Your task to perform on an android device: change the clock display to analog Image 0: 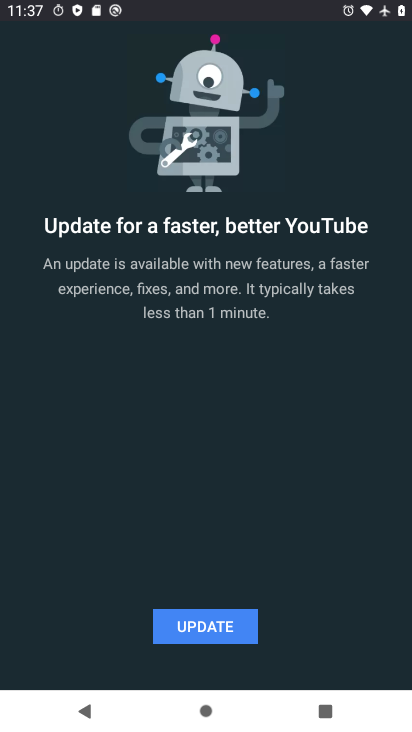
Step 0: press home button
Your task to perform on an android device: change the clock display to analog Image 1: 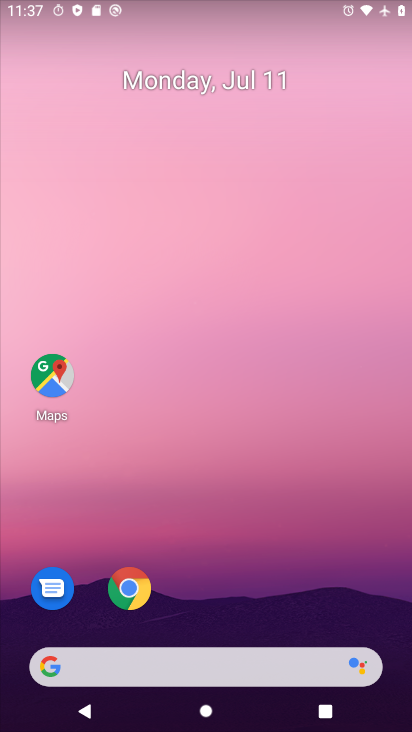
Step 1: drag from (189, 676) to (316, 8)
Your task to perform on an android device: change the clock display to analog Image 2: 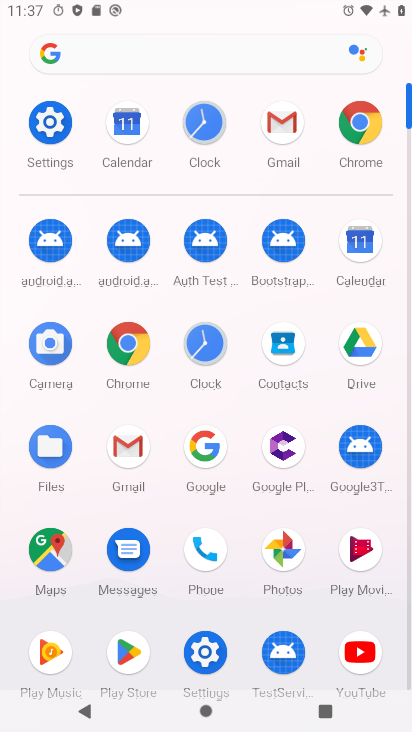
Step 2: click (205, 348)
Your task to perform on an android device: change the clock display to analog Image 3: 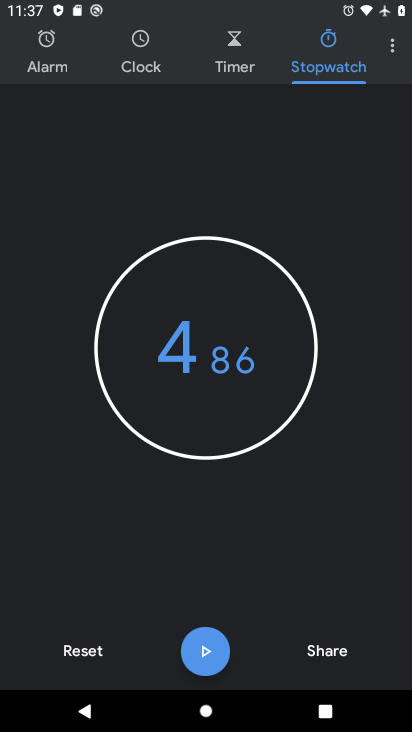
Step 3: click (391, 46)
Your task to perform on an android device: change the clock display to analog Image 4: 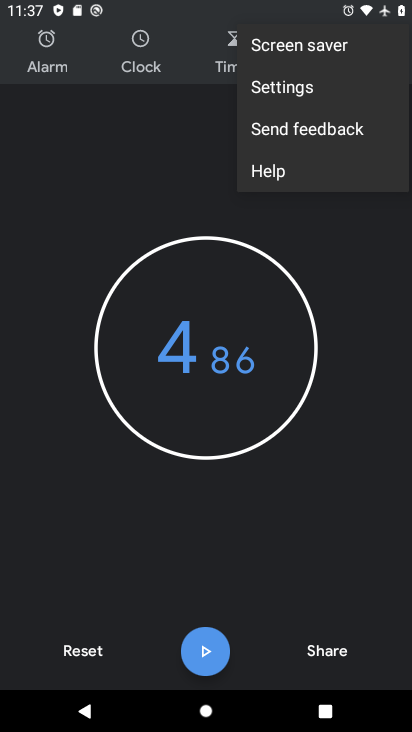
Step 4: click (297, 87)
Your task to perform on an android device: change the clock display to analog Image 5: 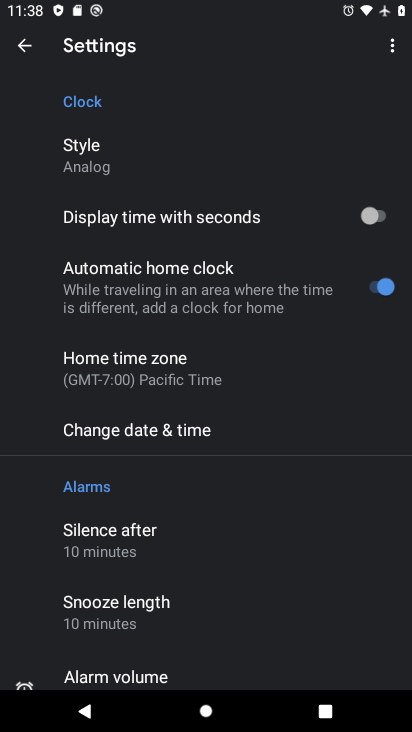
Step 5: task complete